Your task to perform on an android device: Check the weather Image 0: 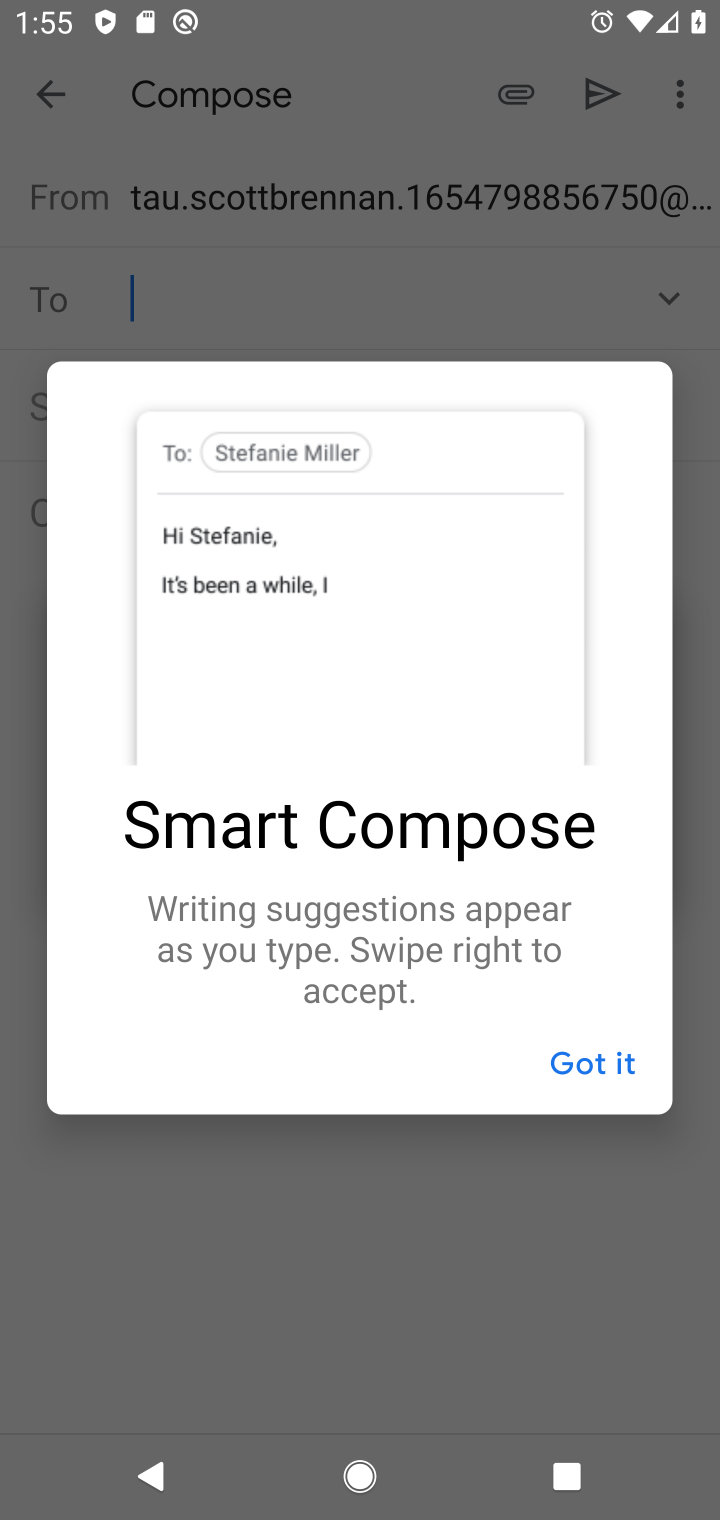
Step 0: press home button
Your task to perform on an android device: Check the weather Image 1: 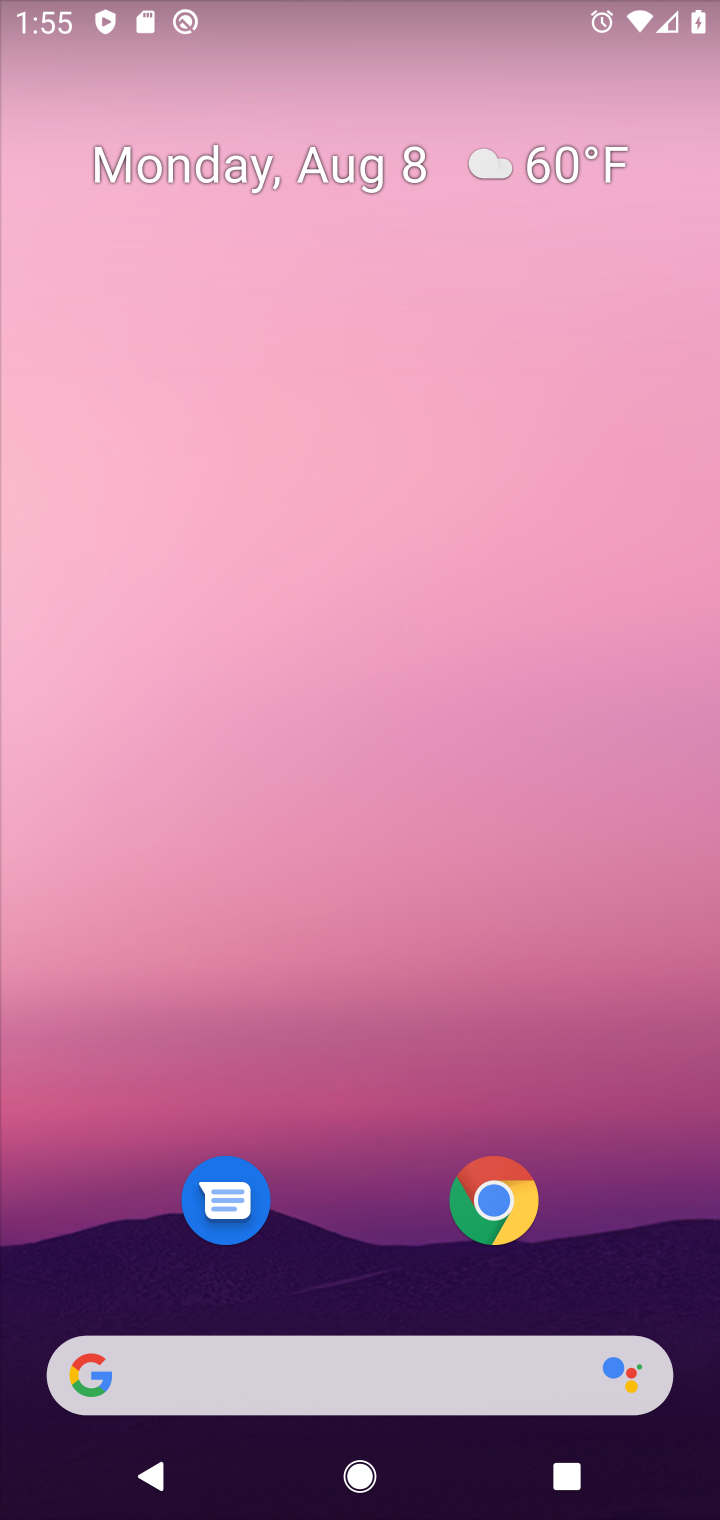
Step 1: click (556, 170)
Your task to perform on an android device: Check the weather Image 2: 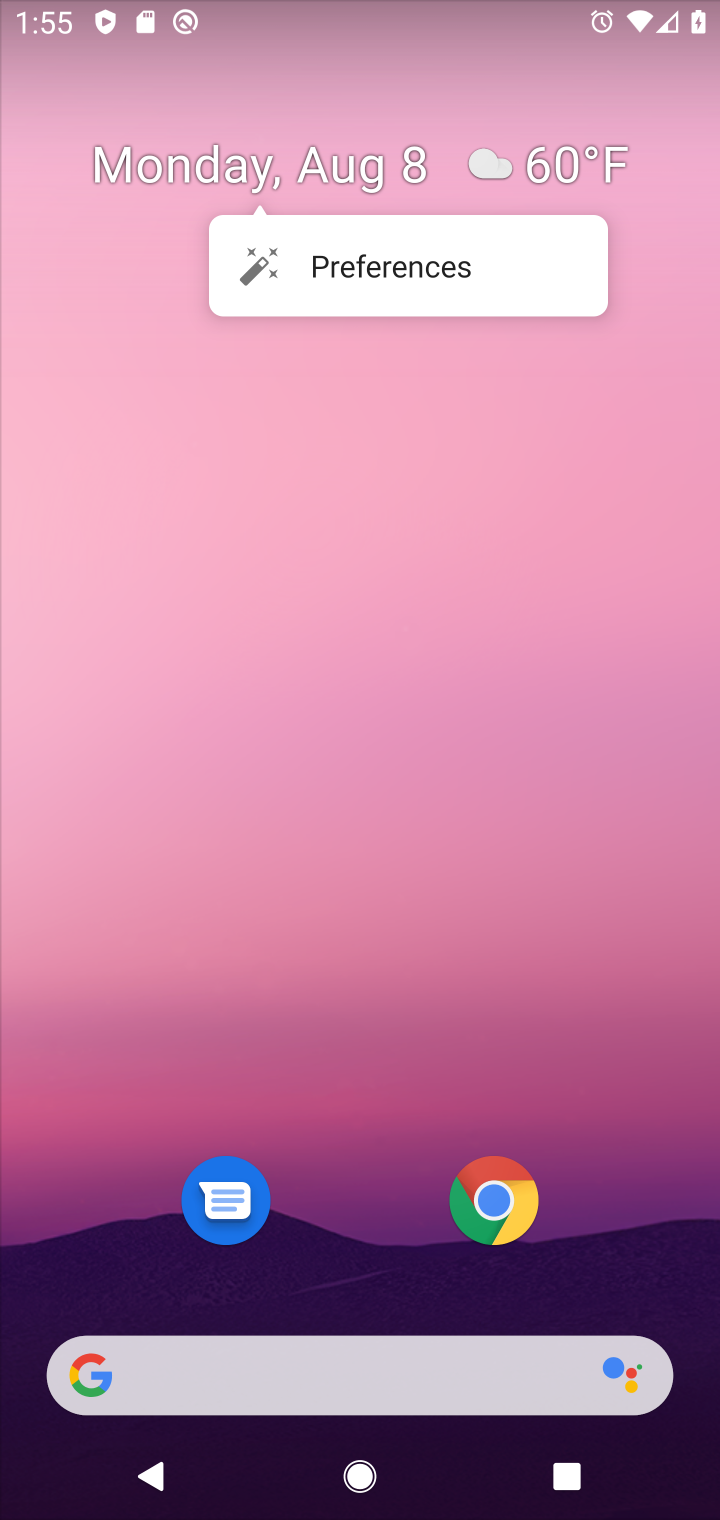
Step 2: click (558, 164)
Your task to perform on an android device: Check the weather Image 3: 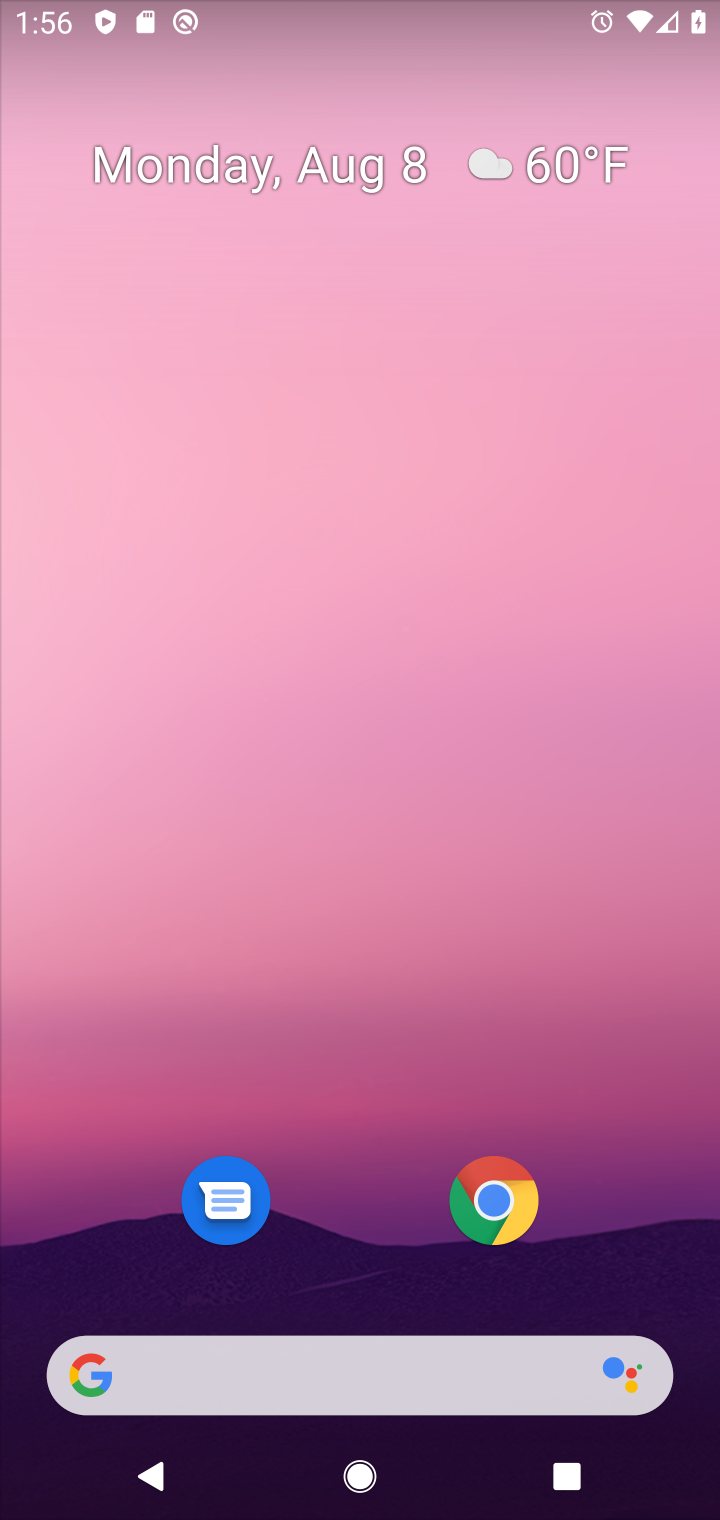
Step 3: click (558, 164)
Your task to perform on an android device: Check the weather Image 4: 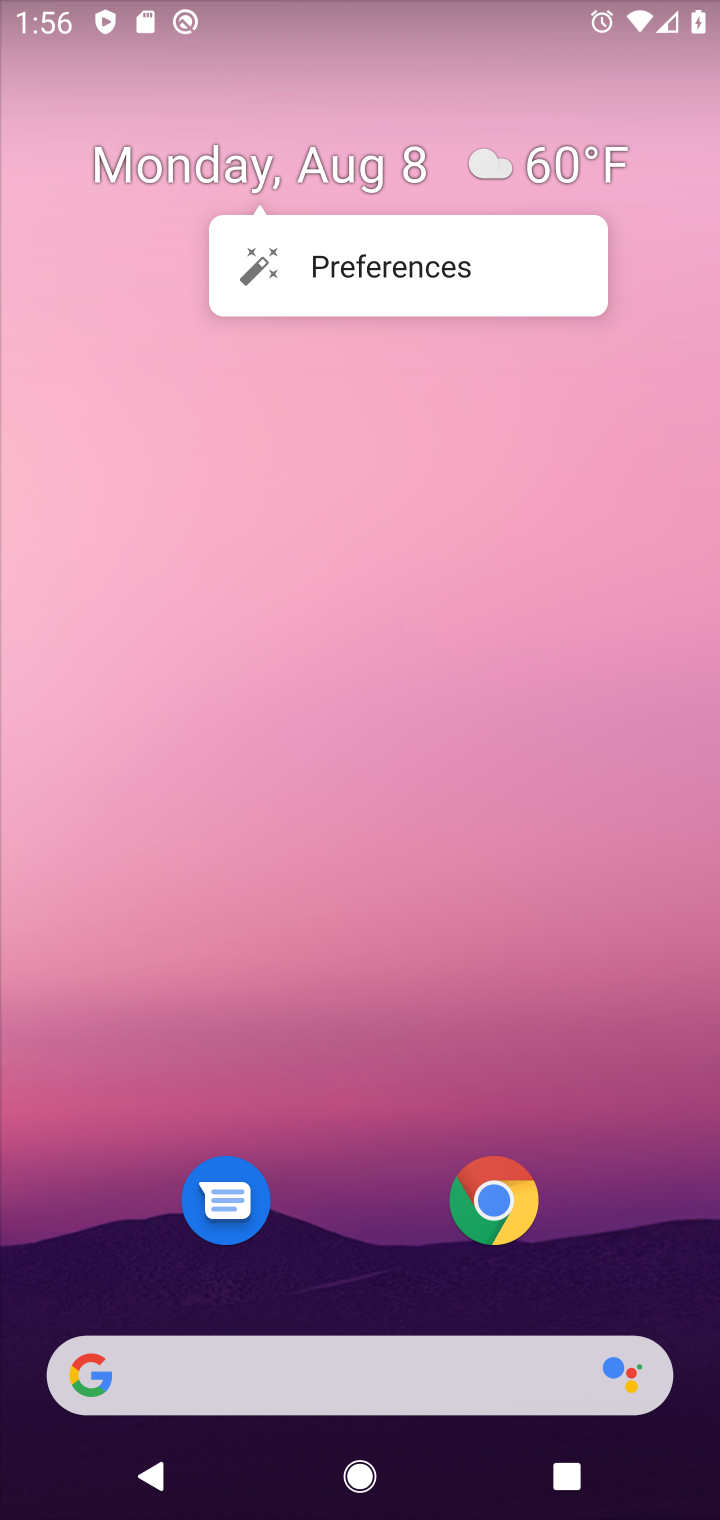
Step 4: click (542, 160)
Your task to perform on an android device: Check the weather Image 5: 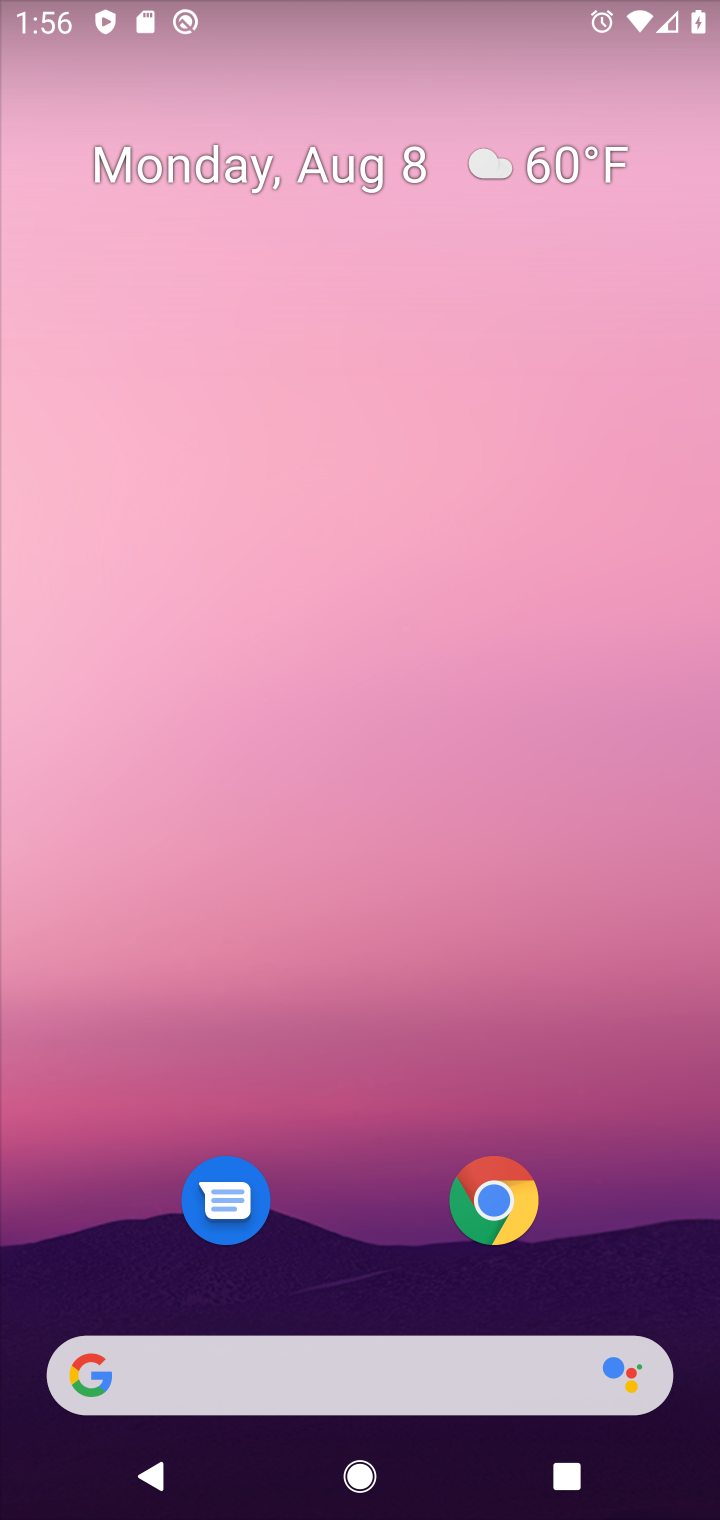
Step 5: click (576, 159)
Your task to perform on an android device: Check the weather Image 6: 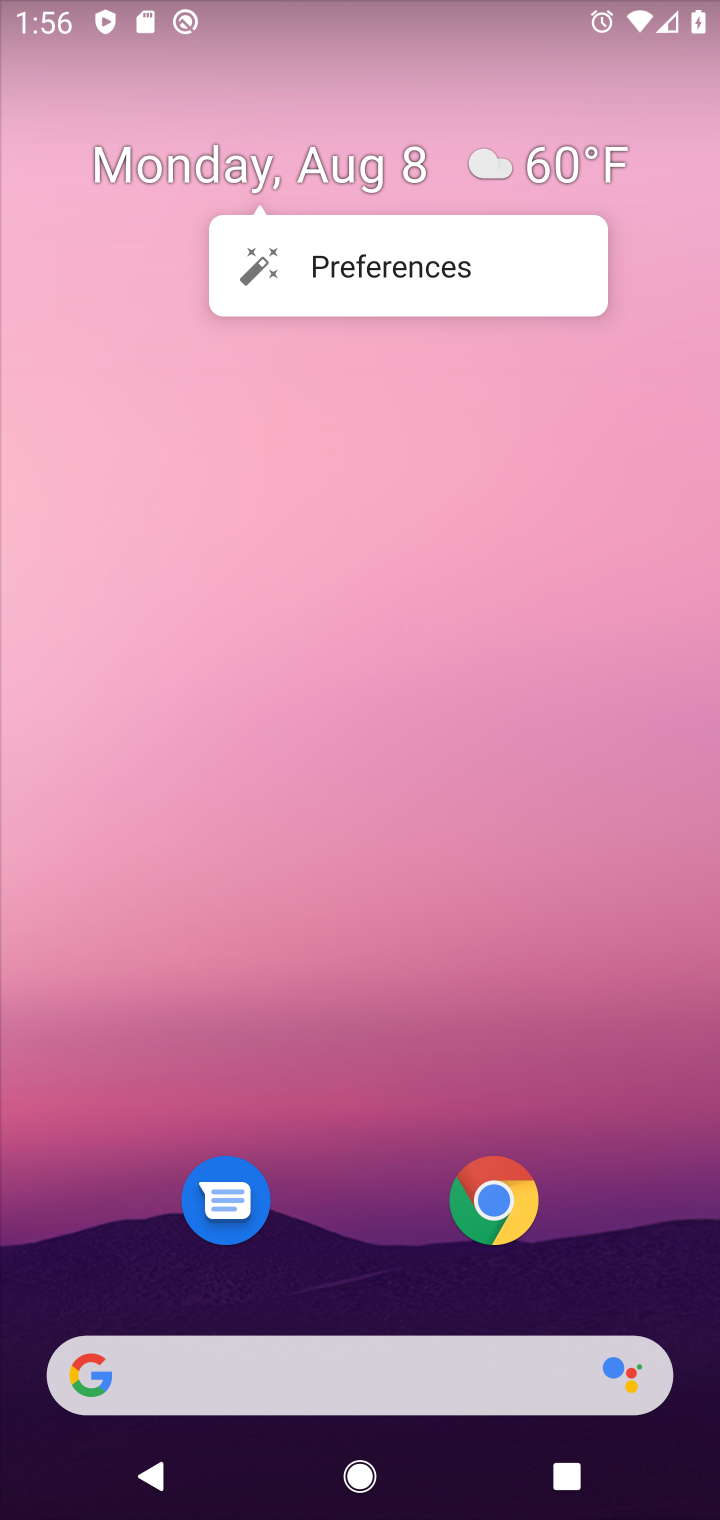
Step 6: click (578, 170)
Your task to perform on an android device: Check the weather Image 7: 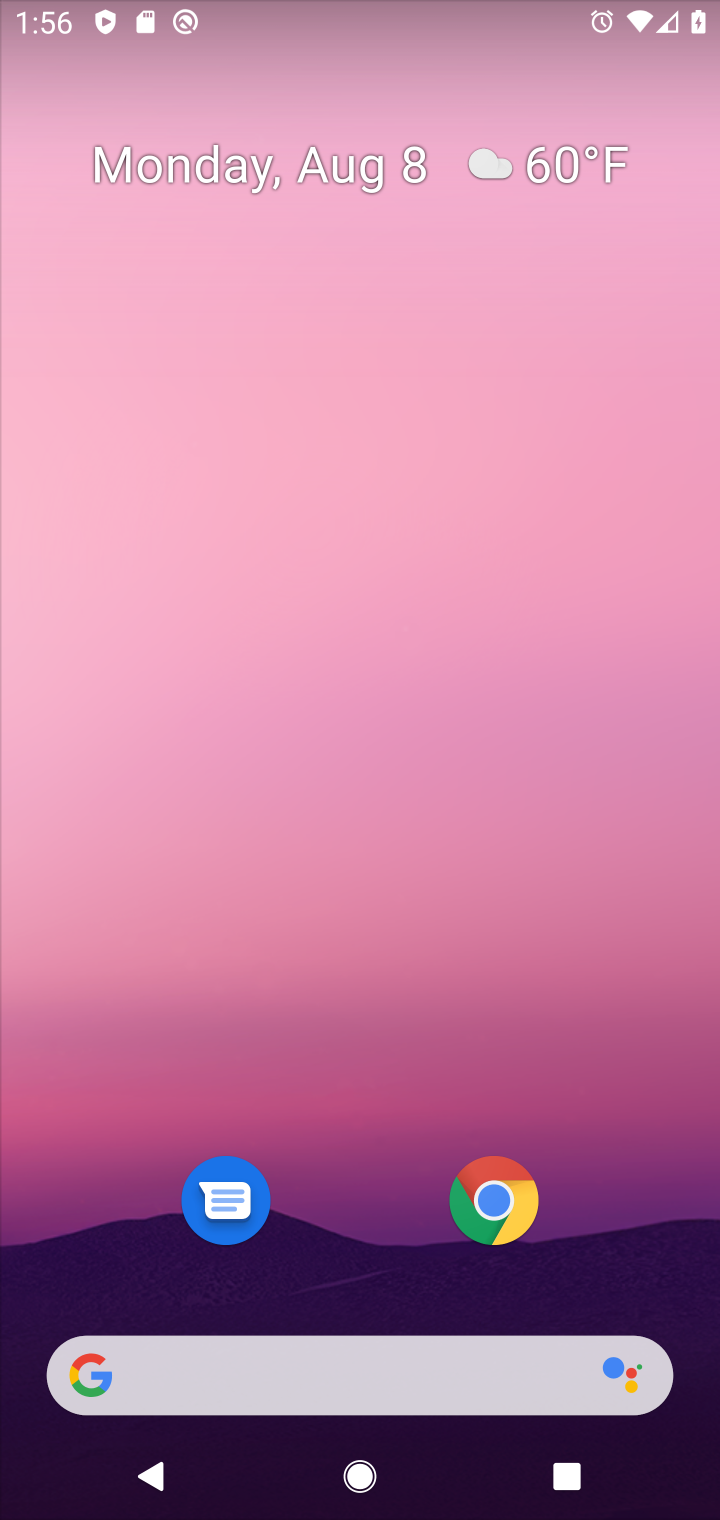
Step 7: click (572, 170)
Your task to perform on an android device: Check the weather Image 8: 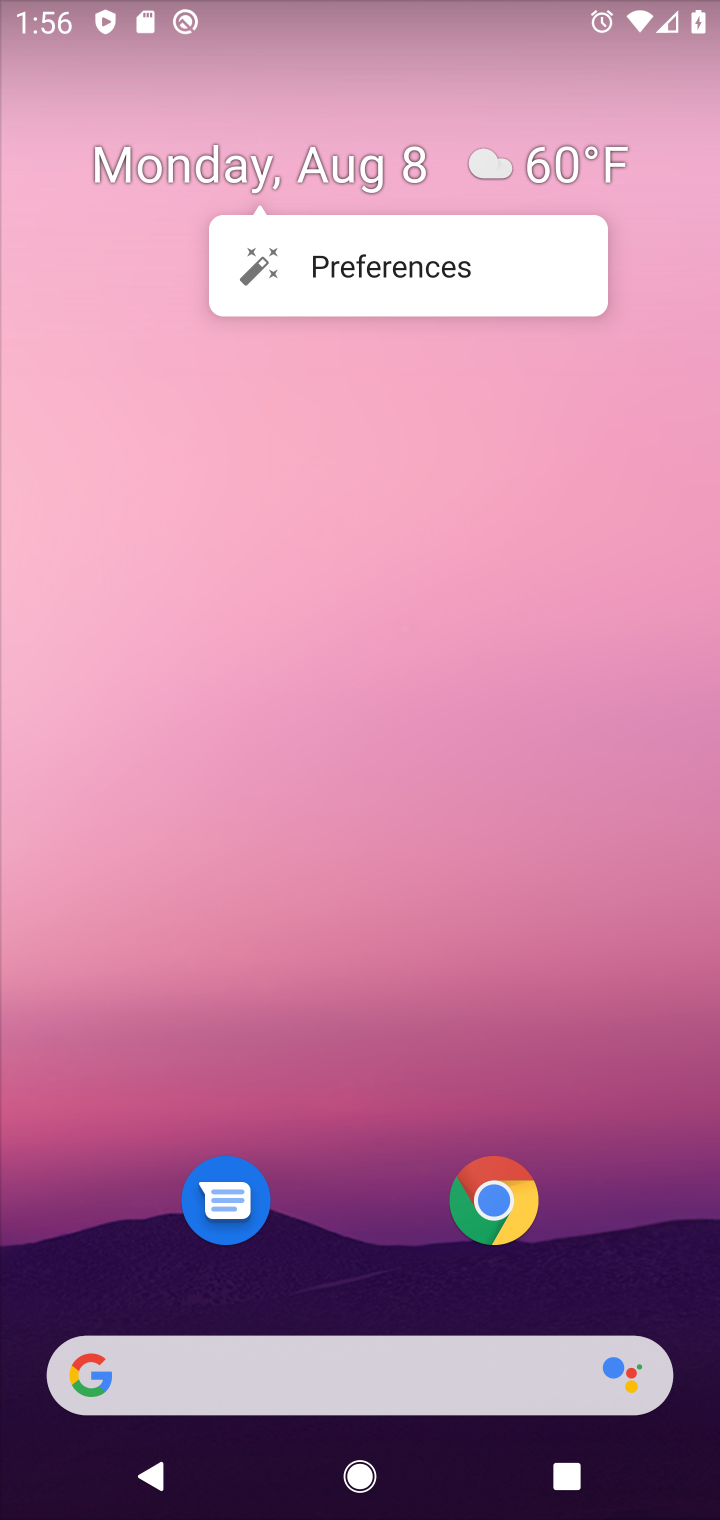
Step 8: click (571, 152)
Your task to perform on an android device: Check the weather Image 9: 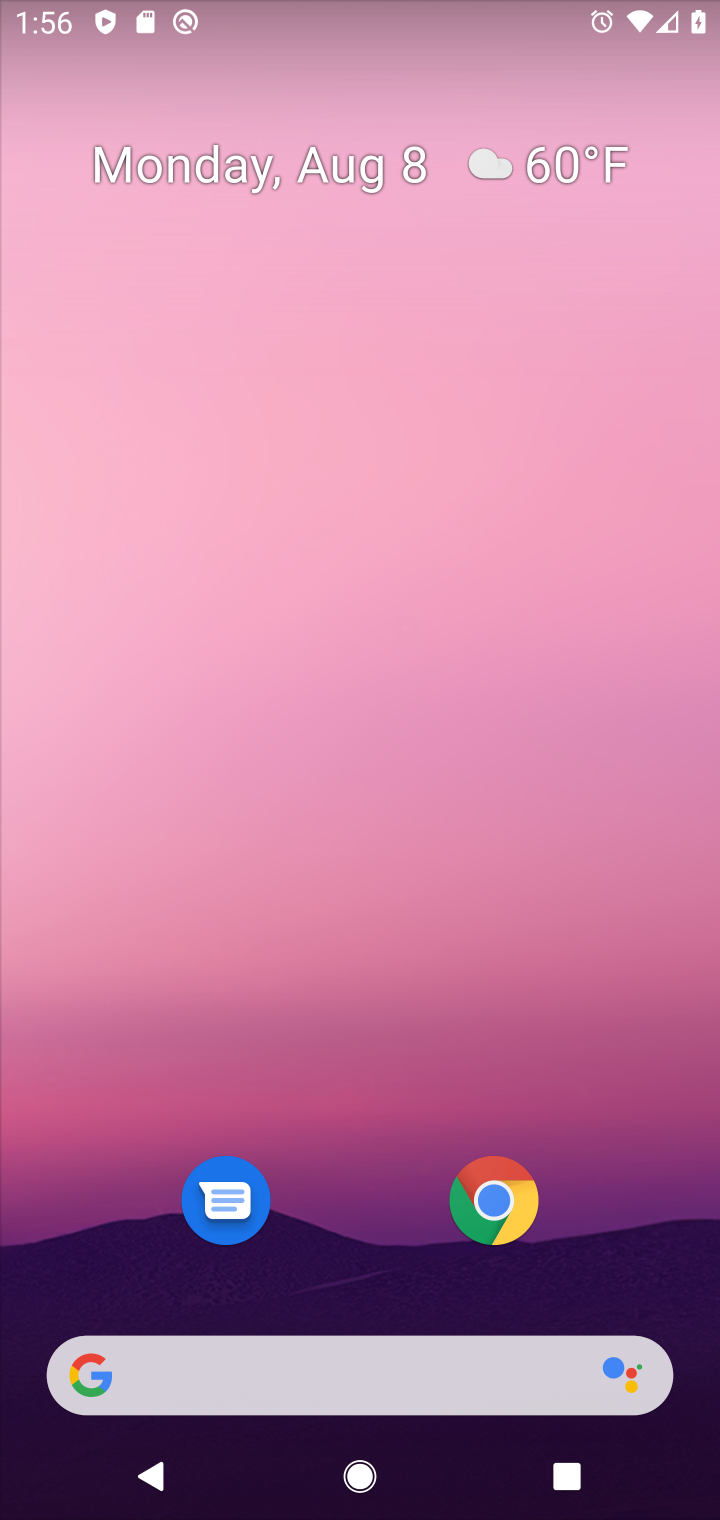
Step 9: click (549, 165)
Your task to perform on an android device: Check the weather Image 10: 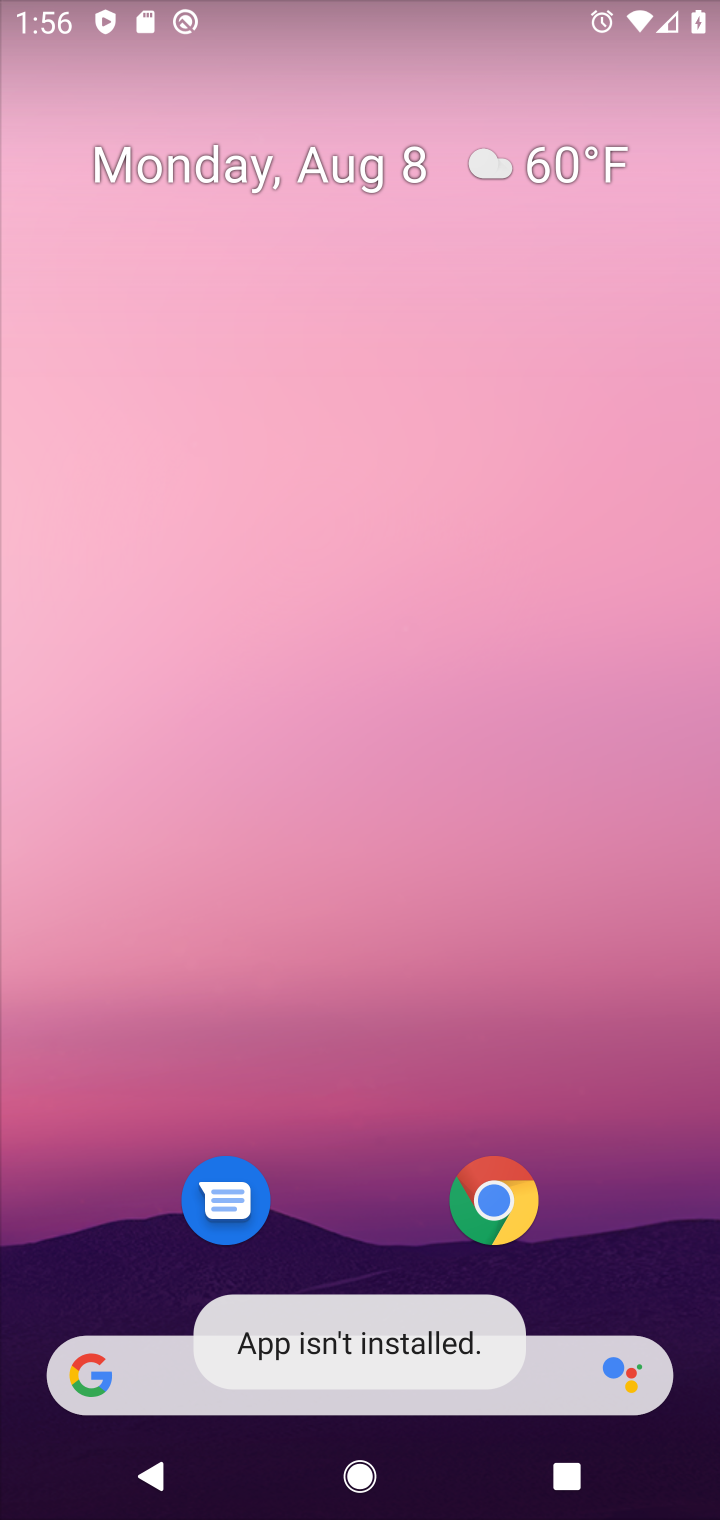
Step 10: click (527, 168)
Your task to perform on an android device: Check the weather Image 11: 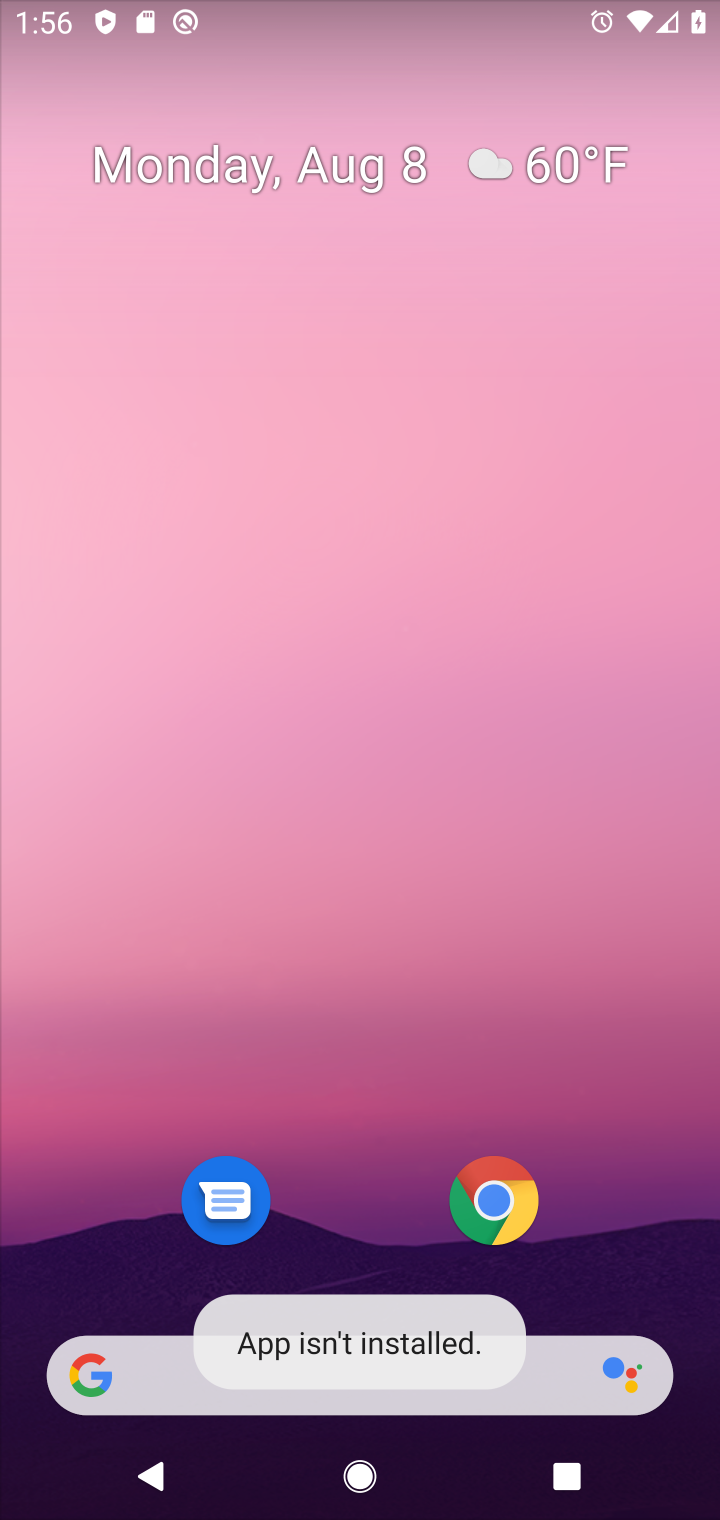
Step 11: drag from (29, 654) to (717, 649)
Your task to perform on an android device: Check the weather Image 12: 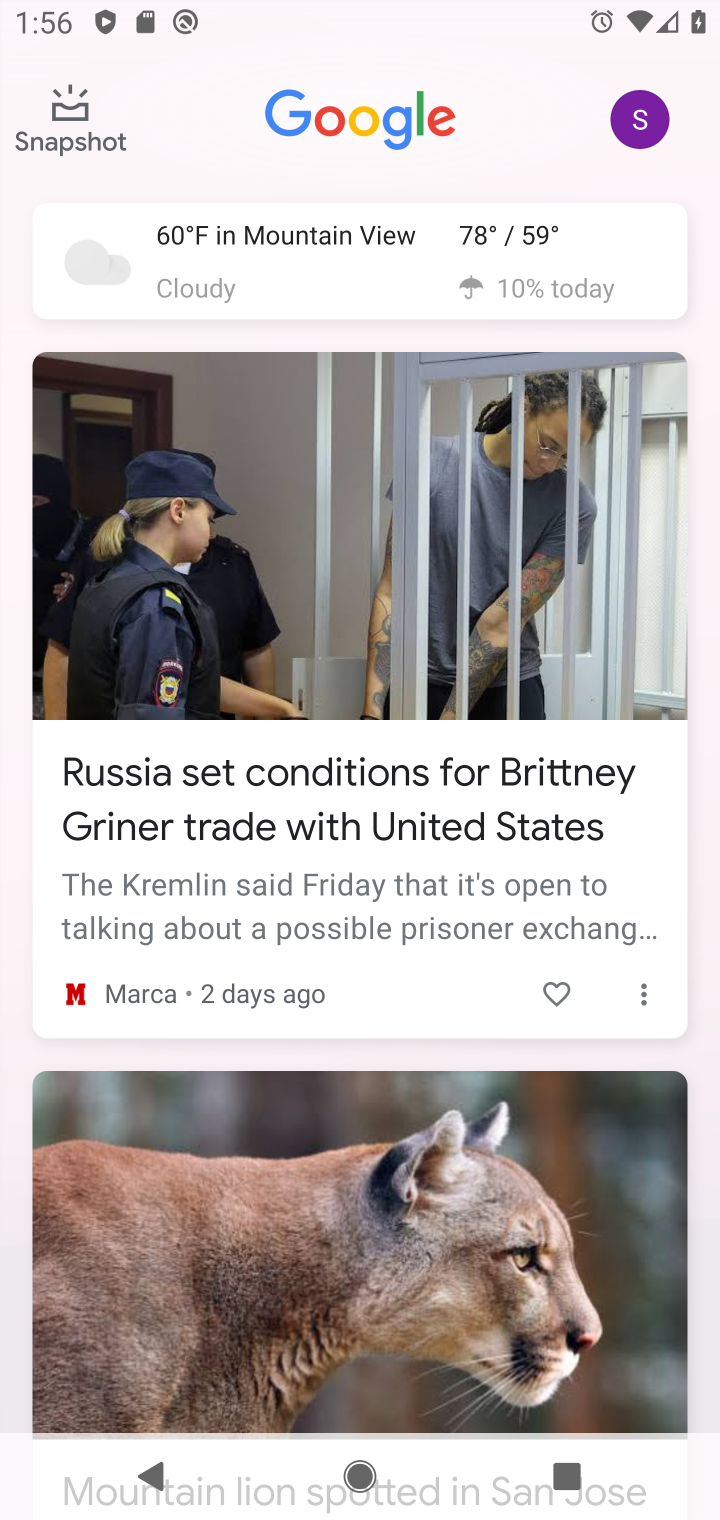
Step 12: click (467, 258)
Your task to perform on an android device: Check the weather Image 13: 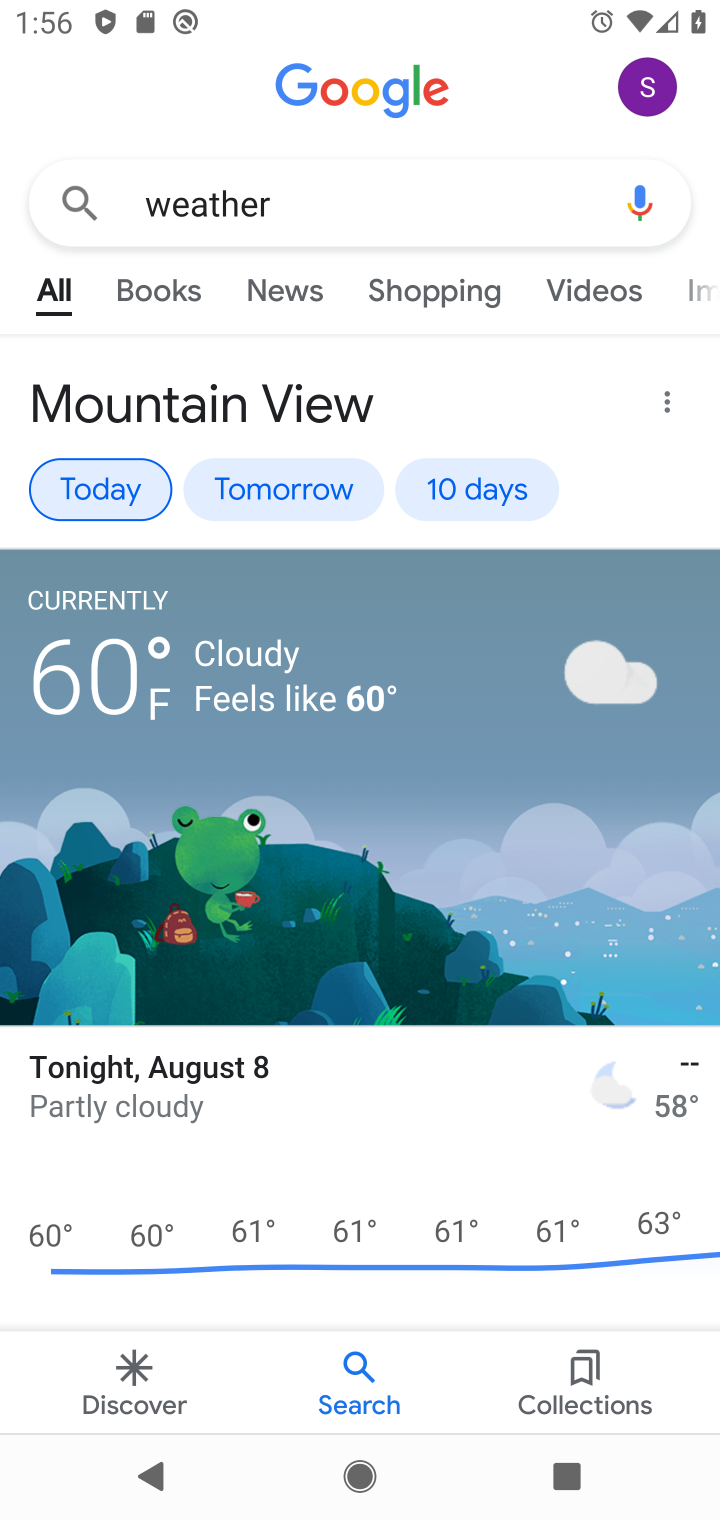
Step 13: task complete